Your task to perform on an android device: open a bookmark in the chrome app Image 0: 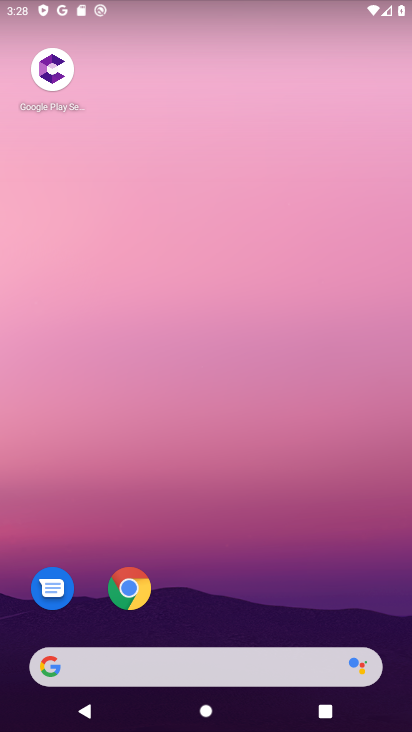
Step 0: click (128, 594)
Your task to perform on an android device: open a bookmark in the chrome app Image 1: 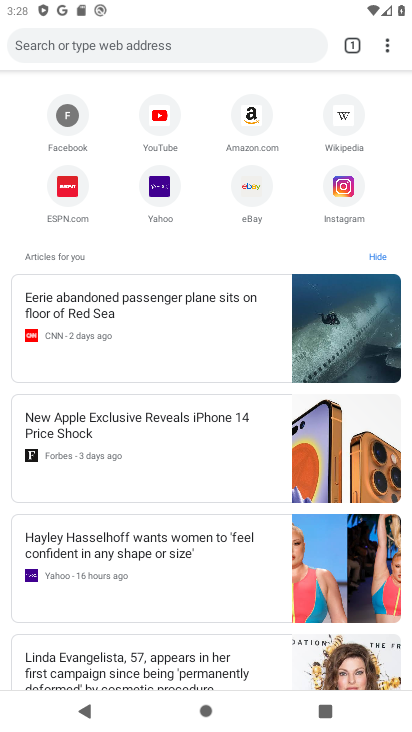
Step 1: click (396, 32)
Your task to perform on an android device: open a bookmark in the chrome app Image 2: 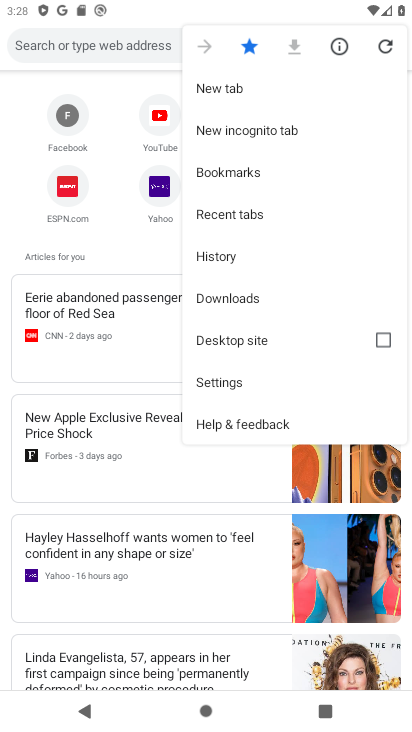
Step 2: click (228, 179)
Your task to perform on an android device: open a bookmark in the chrome app Image 3: 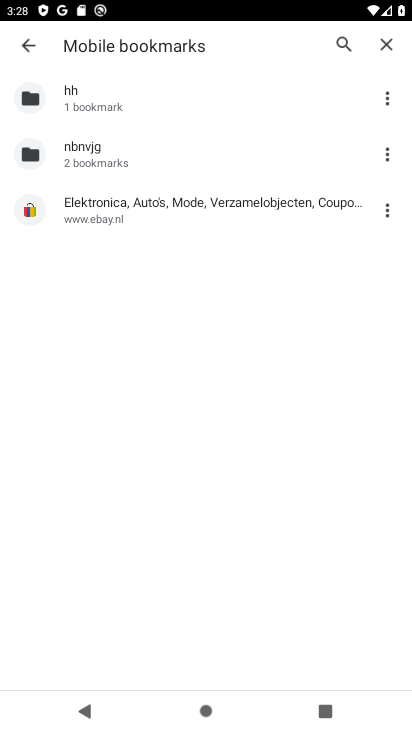
Step 3: click (293, 210)
Your task to perform on an android device: open a bookmark in the chrome app Image 4: 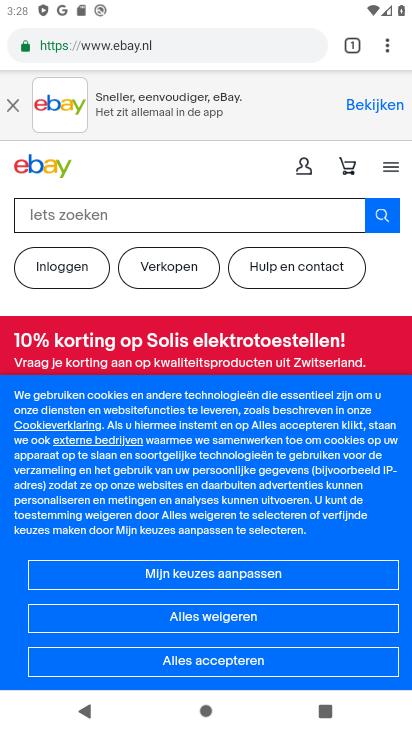
Step 4: task complete